Your task to perform on an android device: change the clock display to show seconds Image 0: 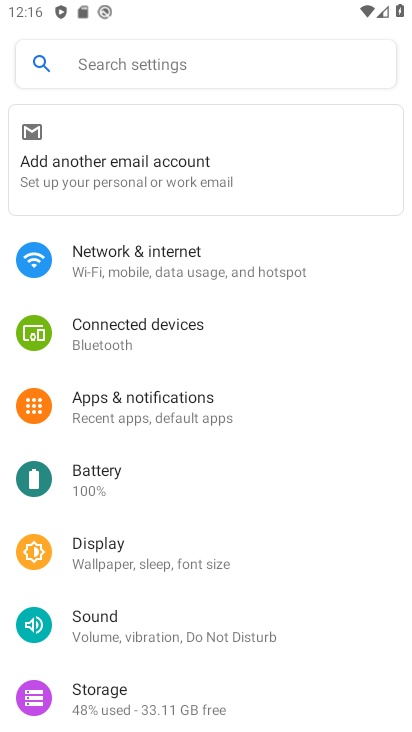
Step 0: press home button
Your task to perform on an android device: change the clock display to show seconds Image 1: 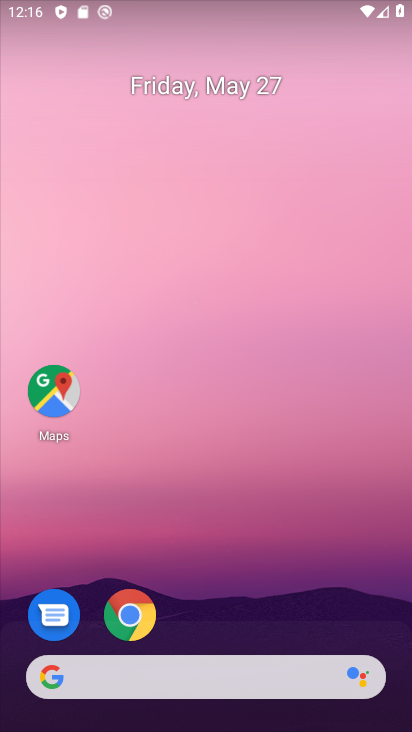
Step 1: drag from (198, 565) to (241, 183)
Your task to perform on an android device: change the clock display to show seconds Image 2: 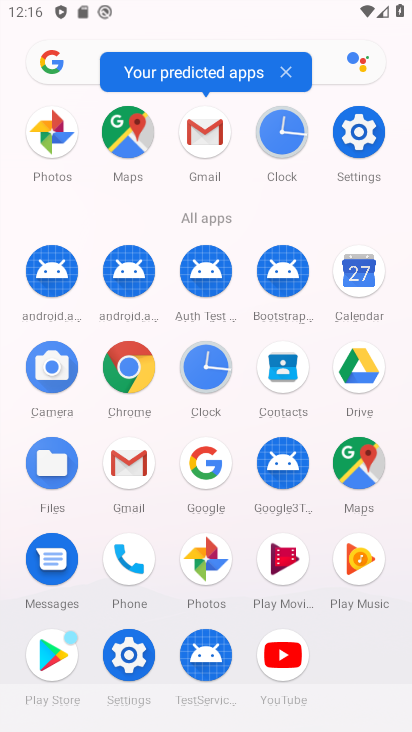
Step 2: click (212, 379)
Your task to perform on an android device: change the clock display to show seconds Image 3: 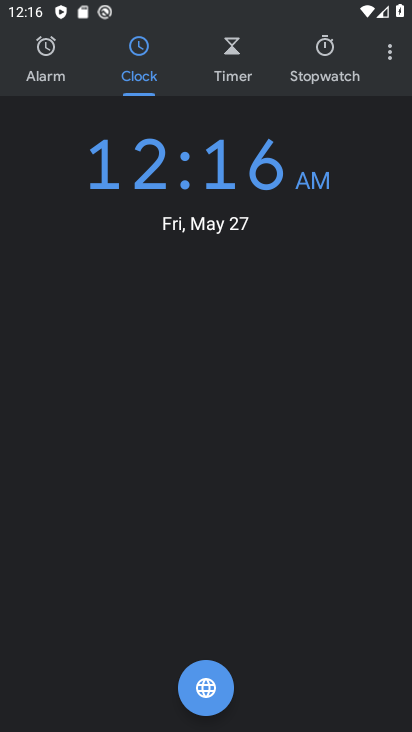
Step 3: click (390, 58)
Your task to perform on an android device: change the clock display to show seconds Image 4: 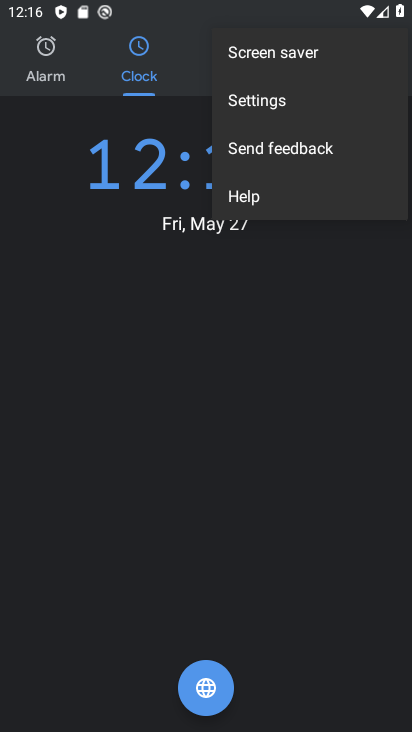
Step 4: click (283, 114)
Your task to perform on an android device: change the clock display to show seconds Image 5: 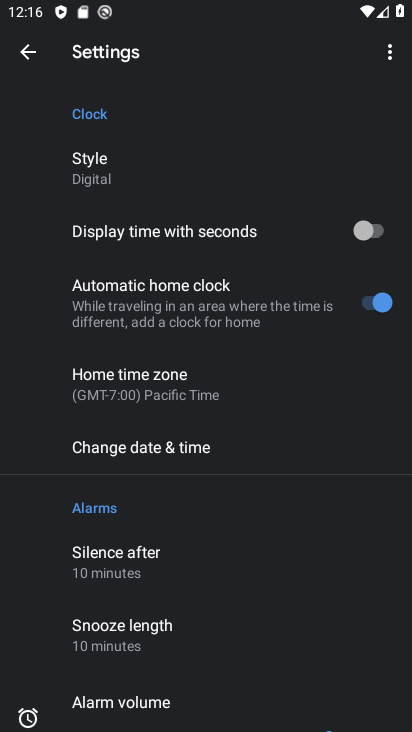
Step 5: click (349, 242)
Your task to perform on an android device: change the clock display to show seconds Image 6: 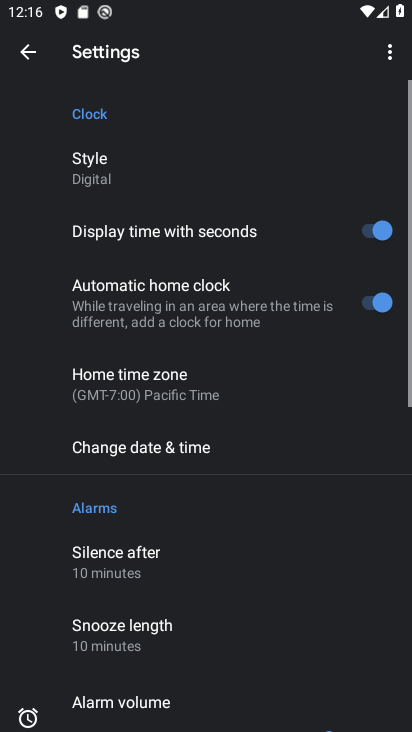
Step 6: task complete